Your task to perform on an android device: Go to sound settings Image 0: 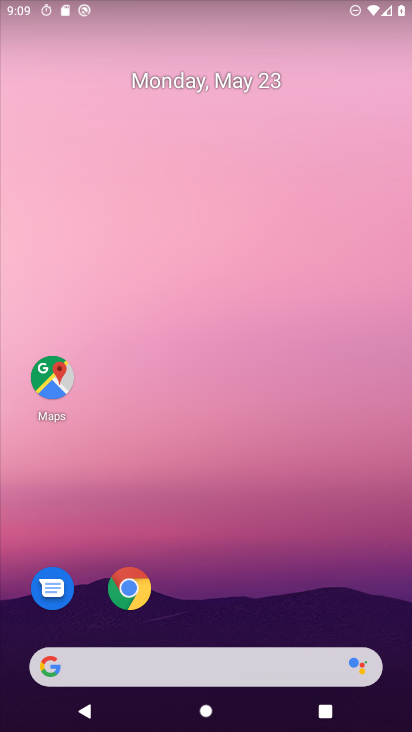
Step 0: drag from (389, 513) to (331, 173)
Your task to perform on an android device: Go to sound settings Image 1: 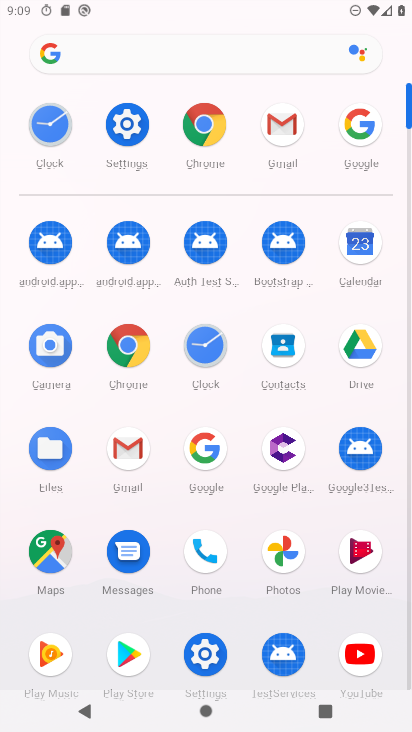
Step 1: click (127, 115)
Your task to perform on an android device: Go to sound settings Image 2: 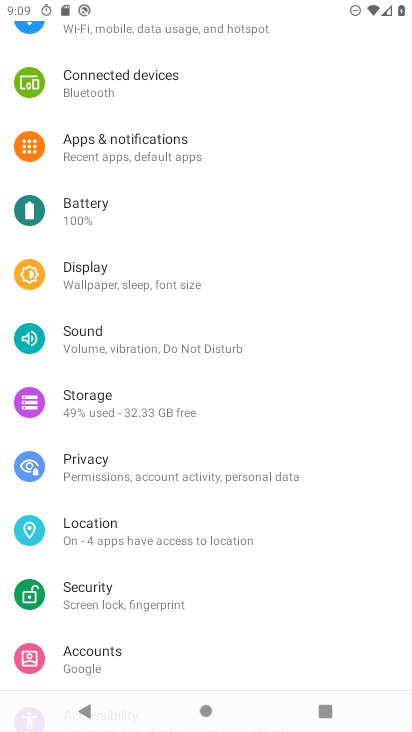
Step 2: click (83, 331)
Your task to perform on an android device: Go to sound settings Image 3: 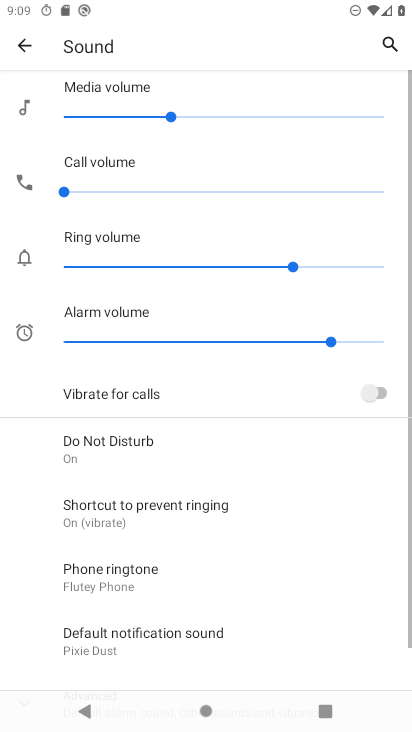
Step 3: task complete